Your task to perform on an android device: visit the assistant section in the google photos Image 0: 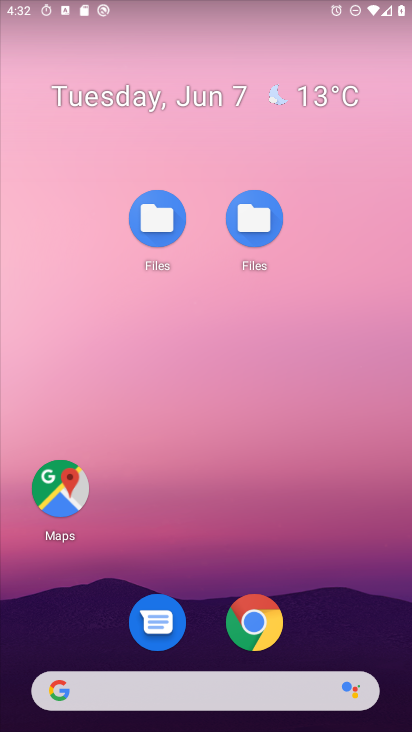
Step 0: drag from (310, 631) to (375, 96)
Your task to perform on an android device: visit the assistant section in the google photos Image 1: 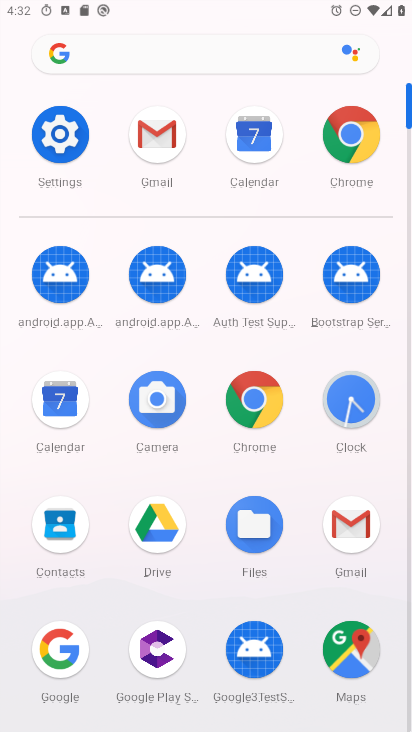
Step 1: drag from (231, 593) to (350, 209)
Your task to perform on an android device: visit the assistant section in the google photos Image 2: 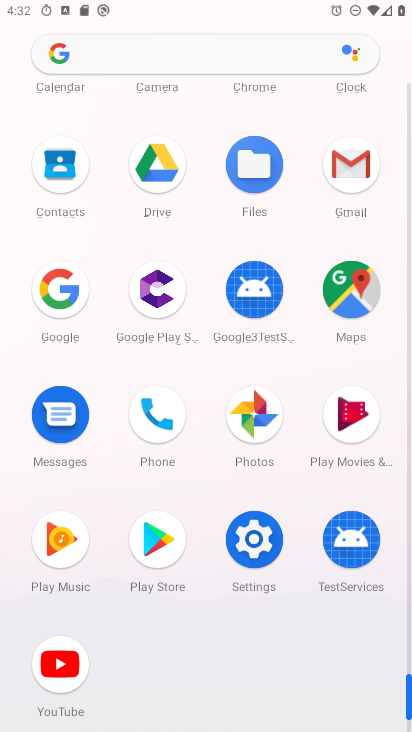
Step 2: click (257, 411)
Your task to perform on an android device: visit the assistant section in the google photos Image 3: 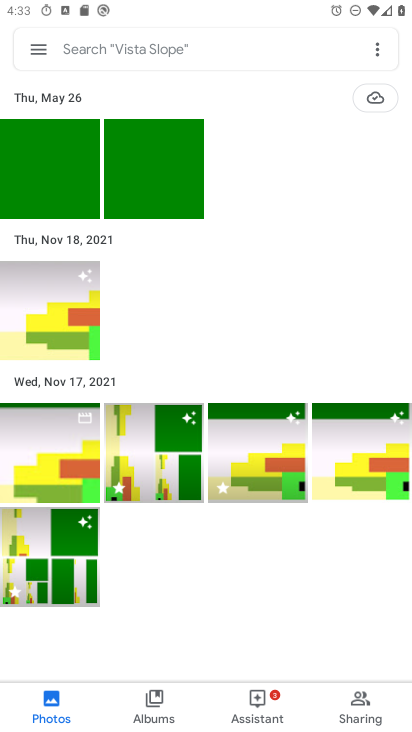
Step 3: click (252, 708)
Your task to perform on an android device: visit the assistant section in the google photos Image 4: 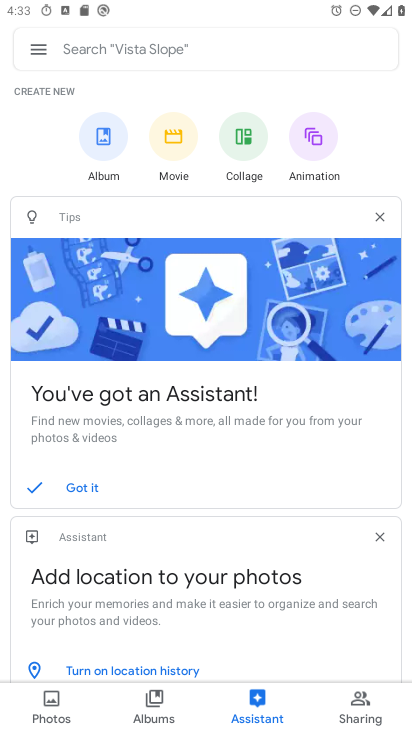
Step 4: task complete